Your task to perform on an android device: turn smart compose on in the gmail app Image 0: 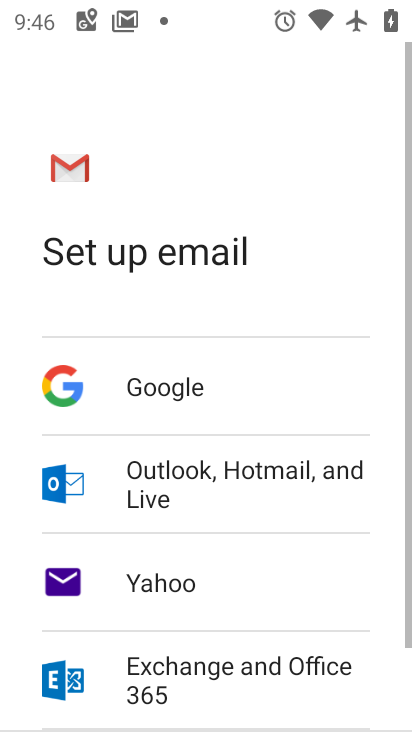
Step 0: press home button
Your task to perform on an android device: turn smart compose on in the gmail app Image 1: 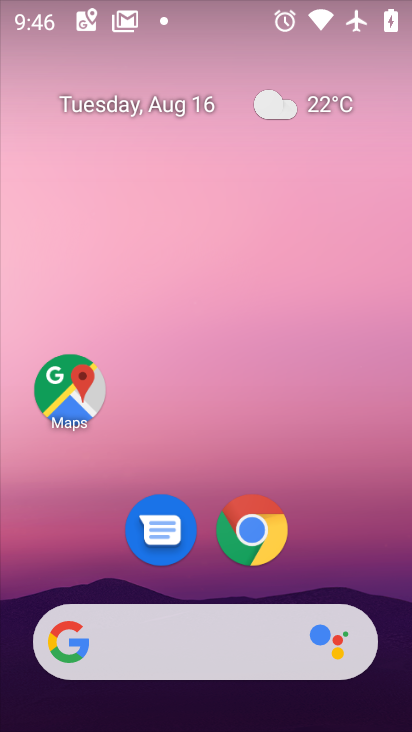
Step 1: drag from (369, 547) to (389, 59)
Your task to perform on an android device: turn smart compose on in the gmail app Image 2: 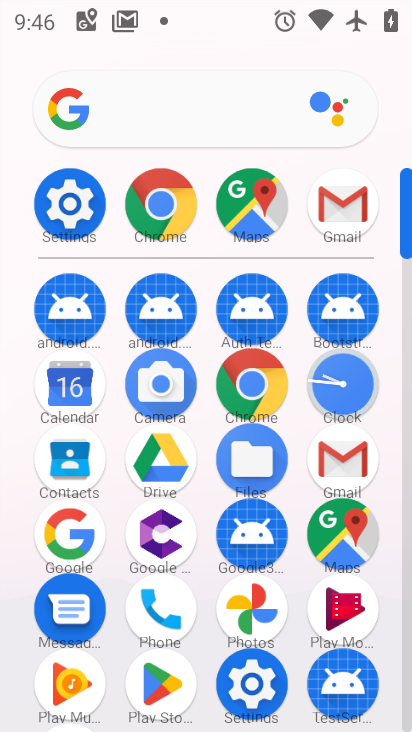
Step 2: click (334, 448)
Your task to perform on an android device: turn smart compose on in the gmail app Image 3: 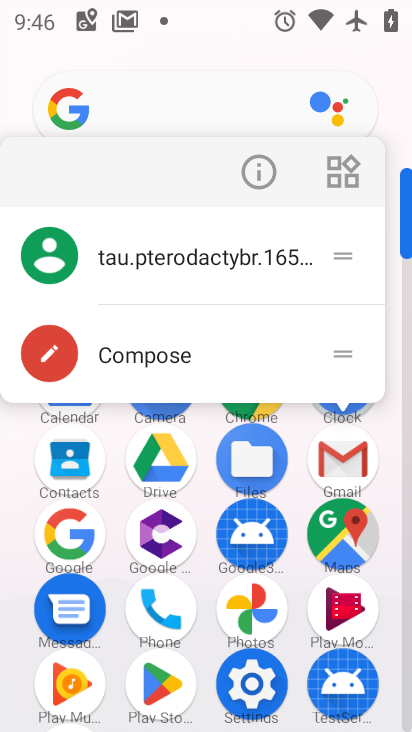
Step 3: click (338, 443)
Your task to perform on an android device: turn smart compose on in the gmail app Image 4: 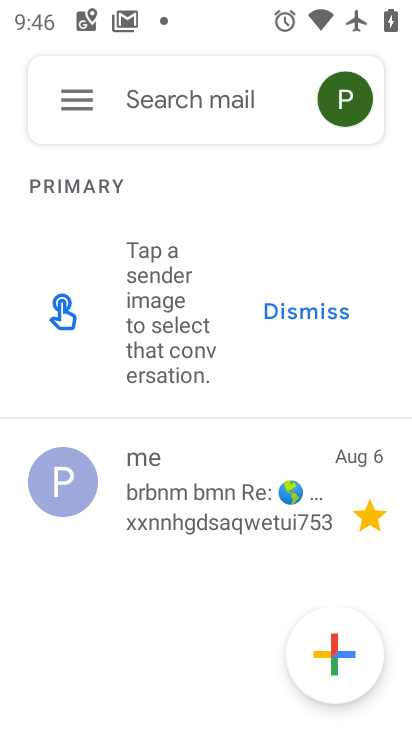
Step 4: click (80, 98)
Your task to perform on an android device: turn smart compose on in the gmail app Image 5: 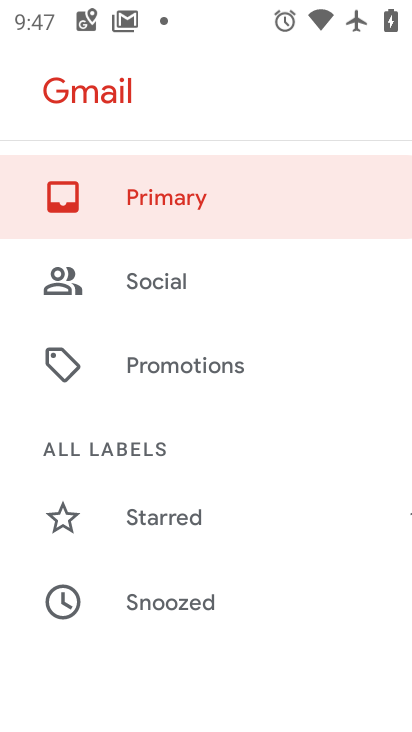
Step 5: drag from (246, 598) to (303, 186)
Your task to perform on an android device: turn smart compose on in the gmail app Image 6: 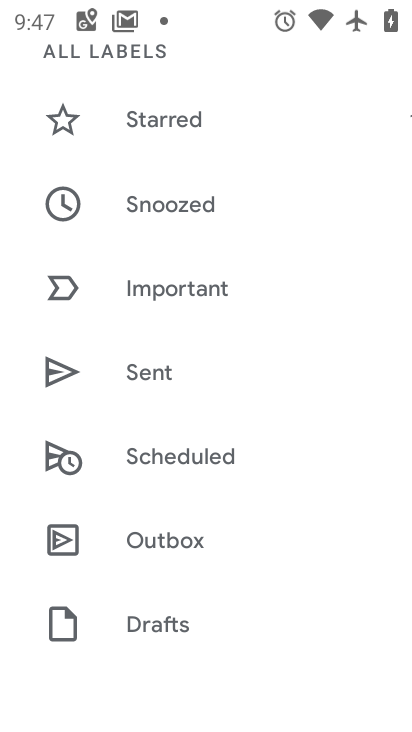
Step 6: drag from (193, 600) to (249, 277)
Your task to perform on an android device: turn smart compose on in the gmail app Image 7: 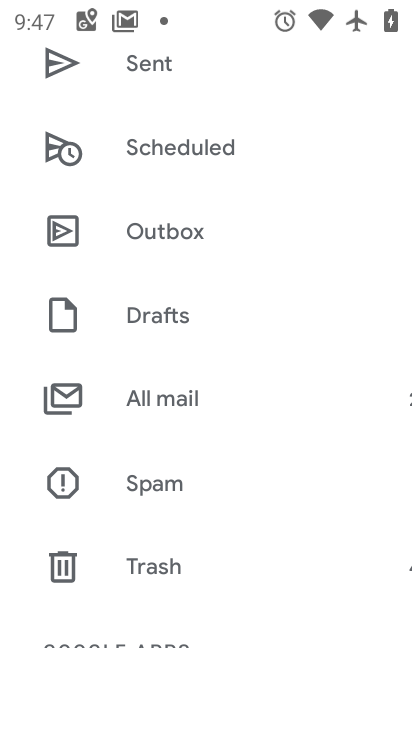
Step 7: drag from (192, 578) to (235, 240)
Your task to perform on an android device: turn smart compose on in the gmail app Image 8: 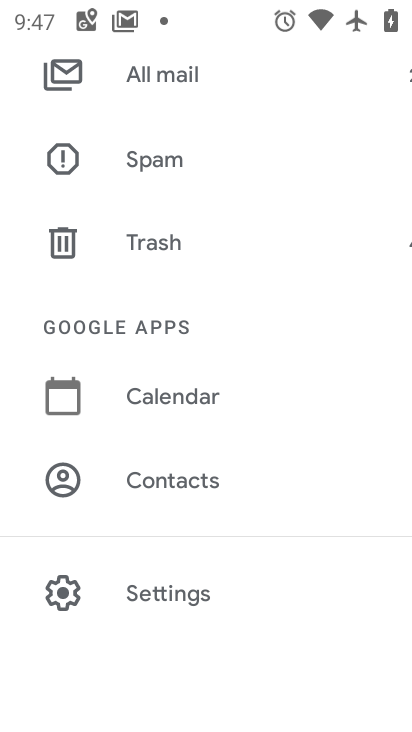
Step 8: click (173, 581)
Your task to perform on an android device: turn smart compose on in the gmail app Image 9: 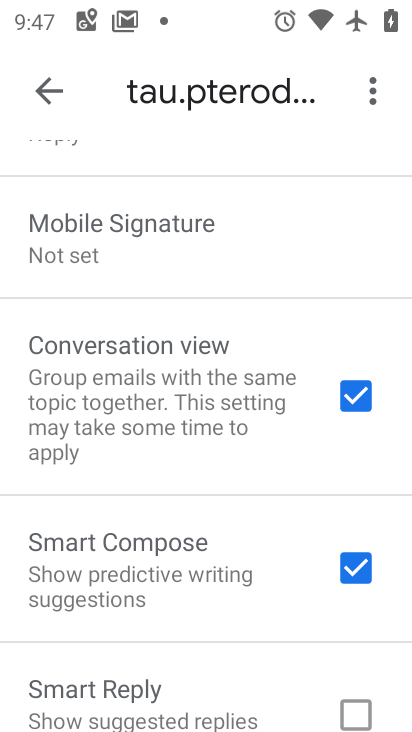
Step 9: task complete